Your task to perform on an android device: Search for a nightstand on IKEA. Image 0: 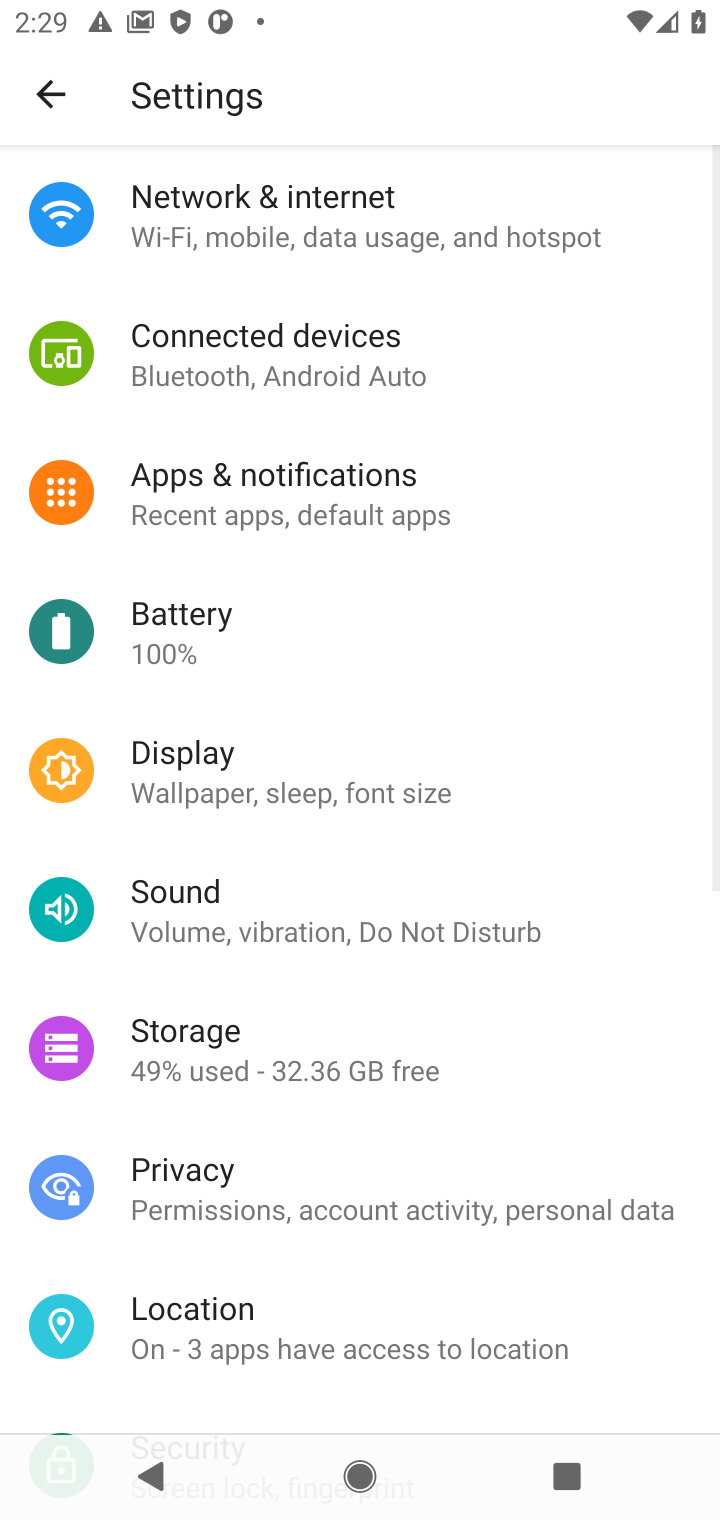
Step 0: press home button
Your task to perform on an android device: Search for a nightstand on IKEA. Image 1: 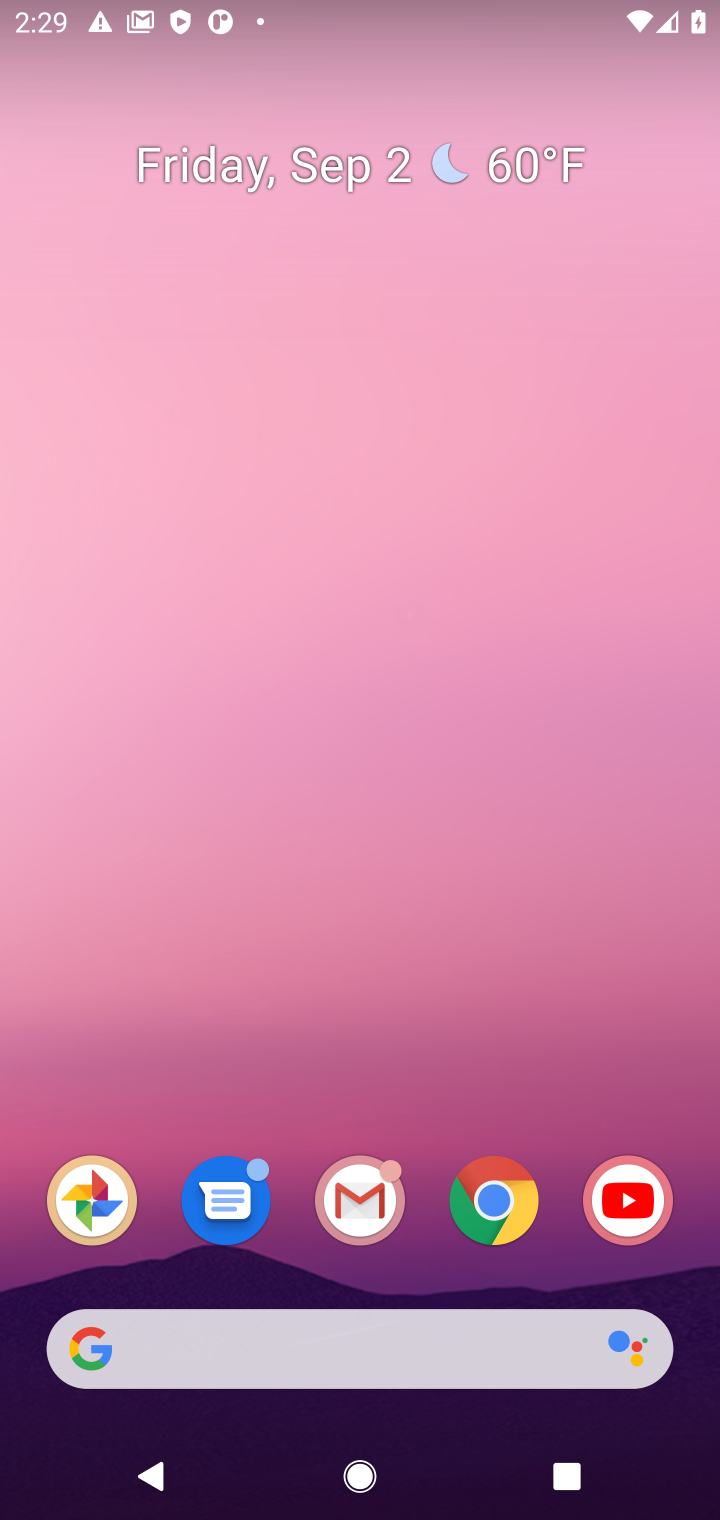
Step 1: click (477, 1198)
Your task to perform on an android device: Search for a nightstand on IKEA. Image 2: 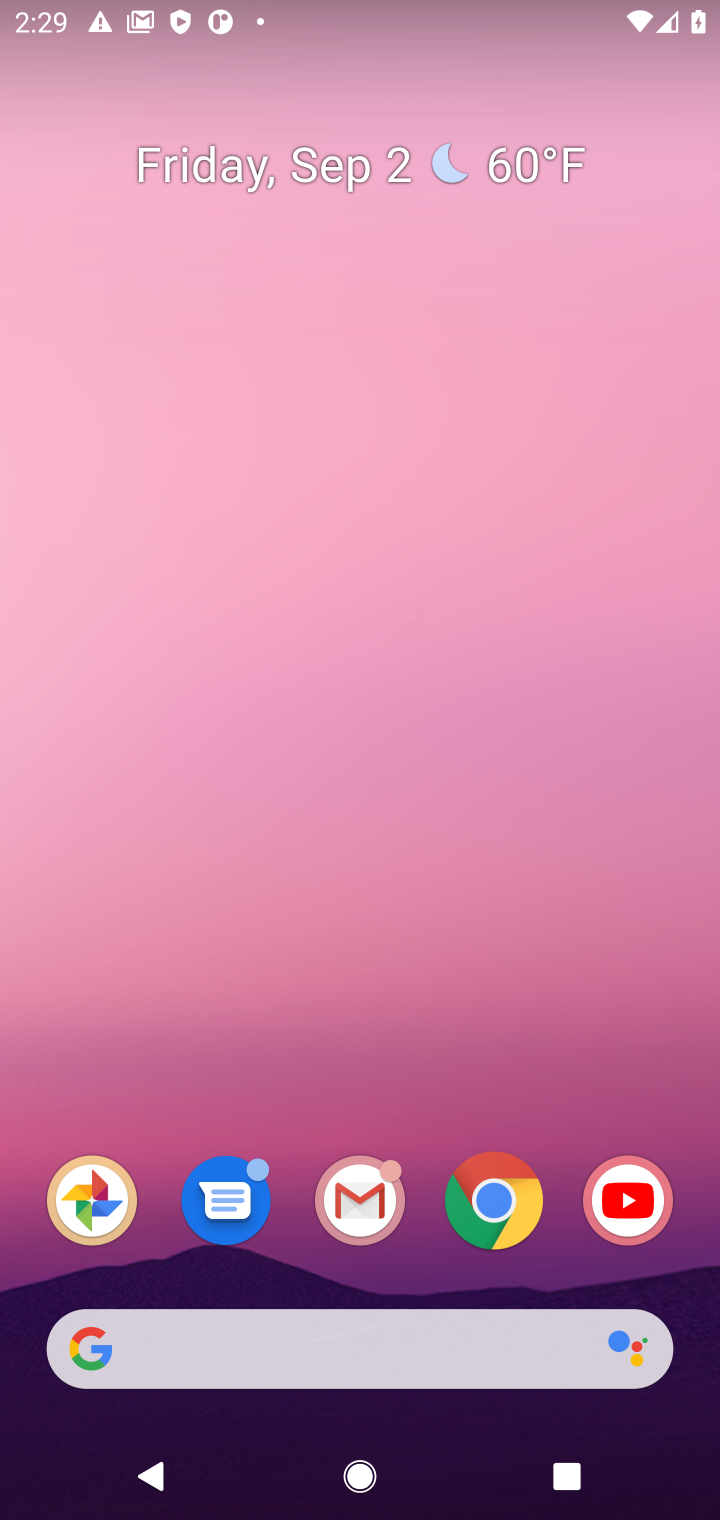
Step 2: click (477, 1202)
Your task to perform on an android device: Search for a nightstand on IKEA. Image 3: 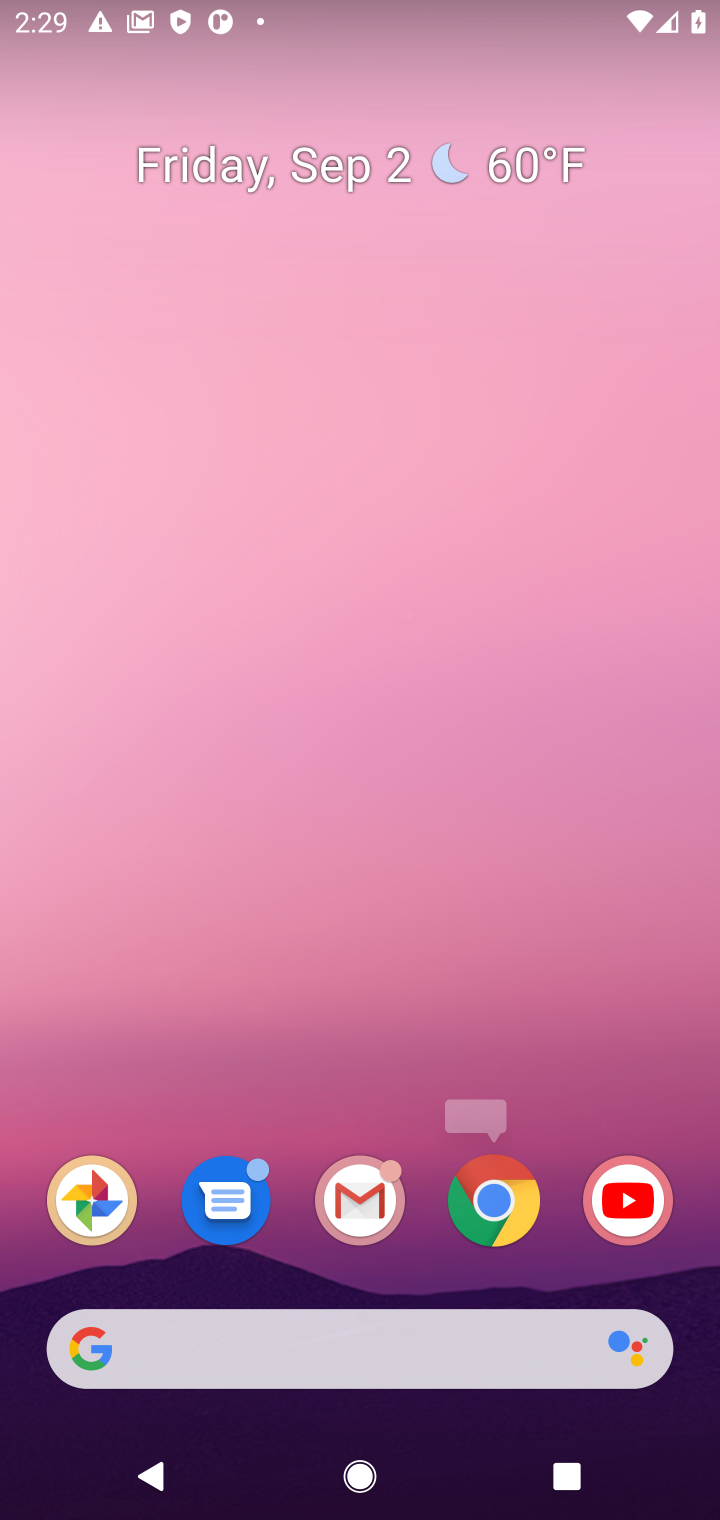
Step 3: click (481, 1196)
Your task to perform on an android device: Search for a nightstand on IKEA. Image 4: 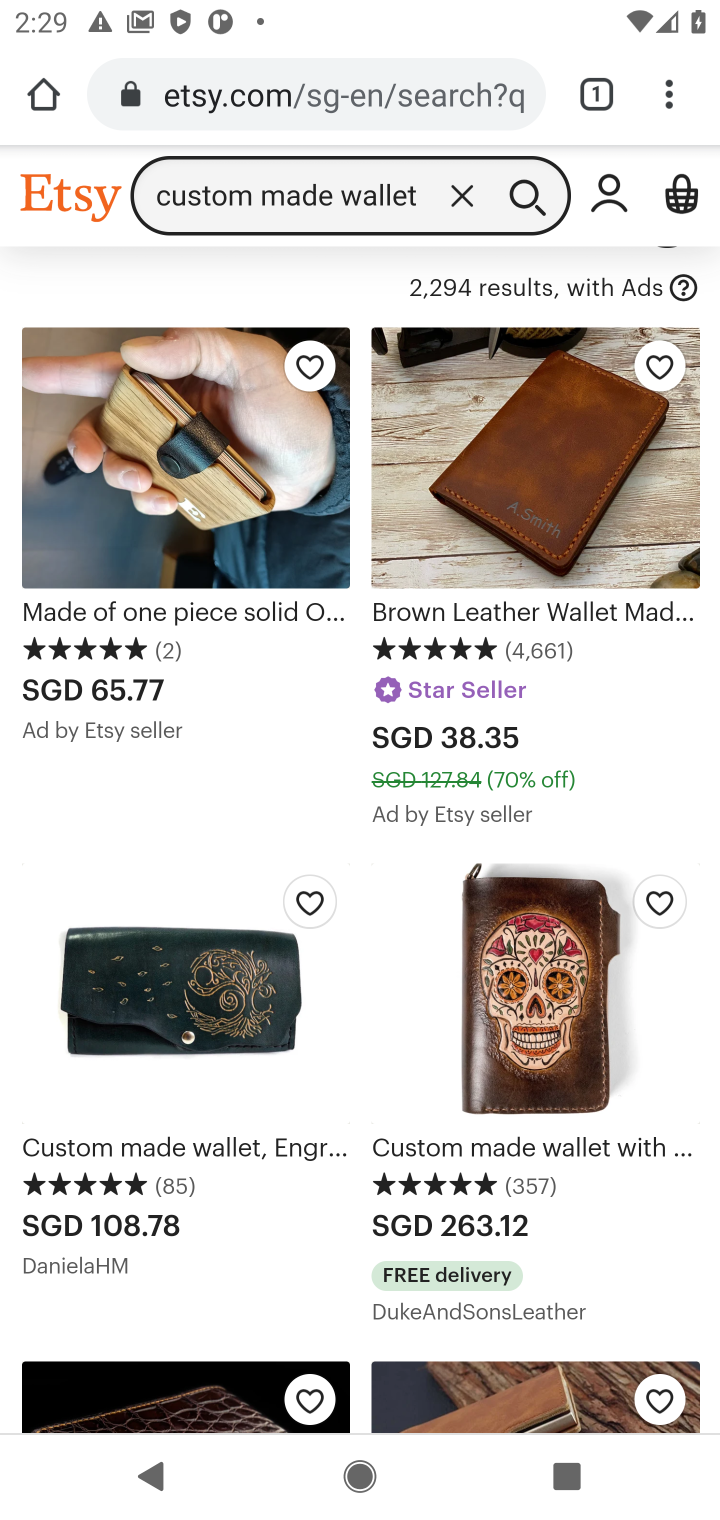
Step 4: click (421, 80)
Your task to perform on an android device: Search for a nightstand on IKEA. Image 5: 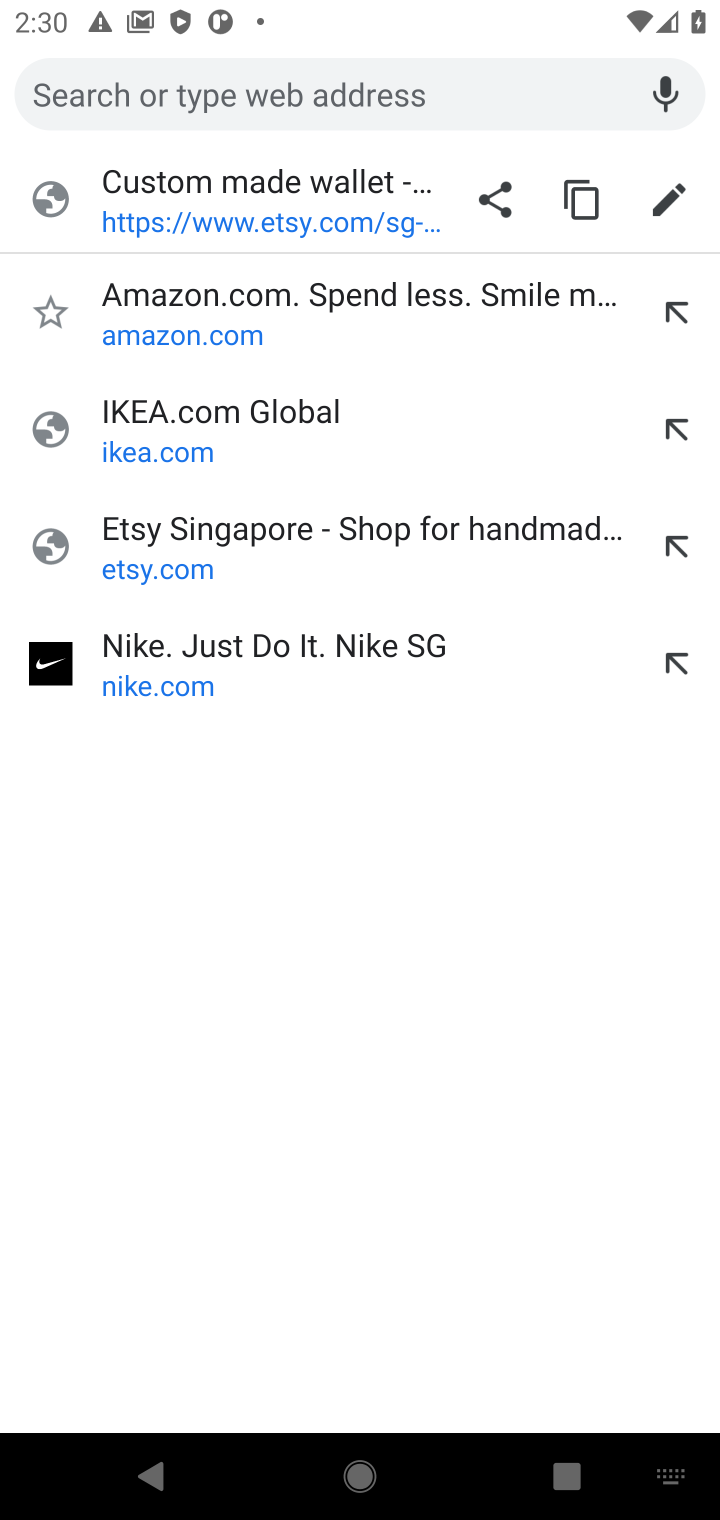
Step 5: type "IKEA"
Your task to perform on an android device: Search for a nightstand on IKEA. Image 6: 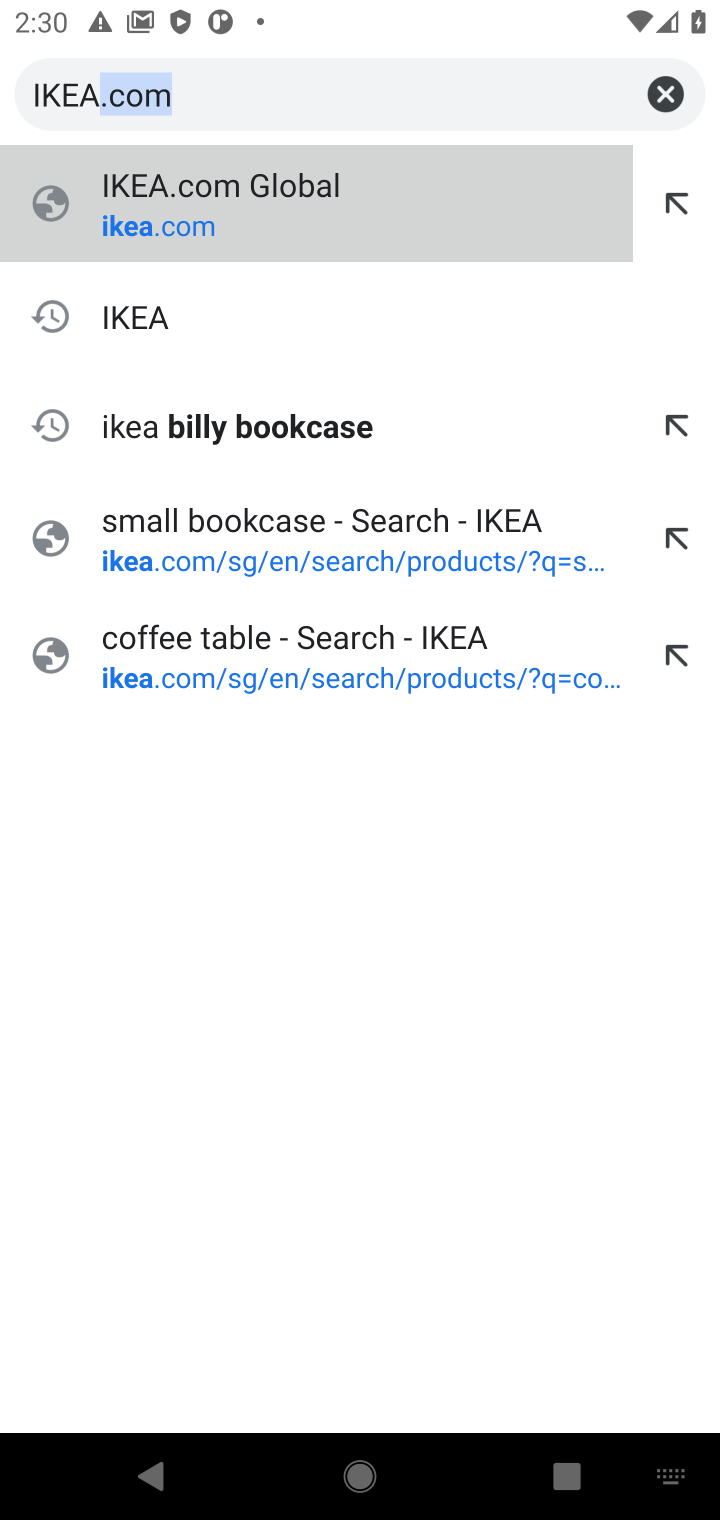
Step 6: press enter
Your task to perform on an android device: Search for a nightstand on IKEA. Image 7: 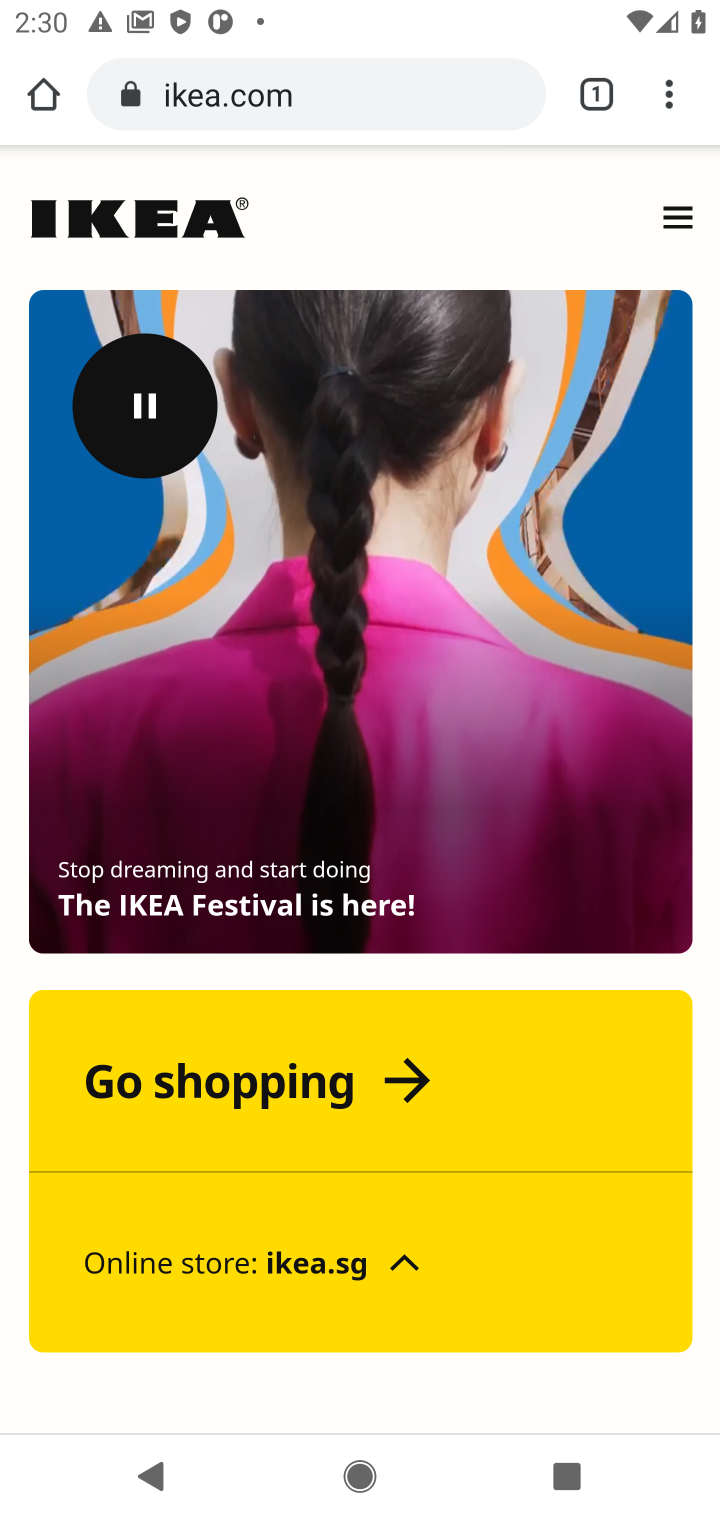
Step 7: click (414, 1078)
Your task to perform on an android device: Search for a nightstand on IKEA. Image 8: 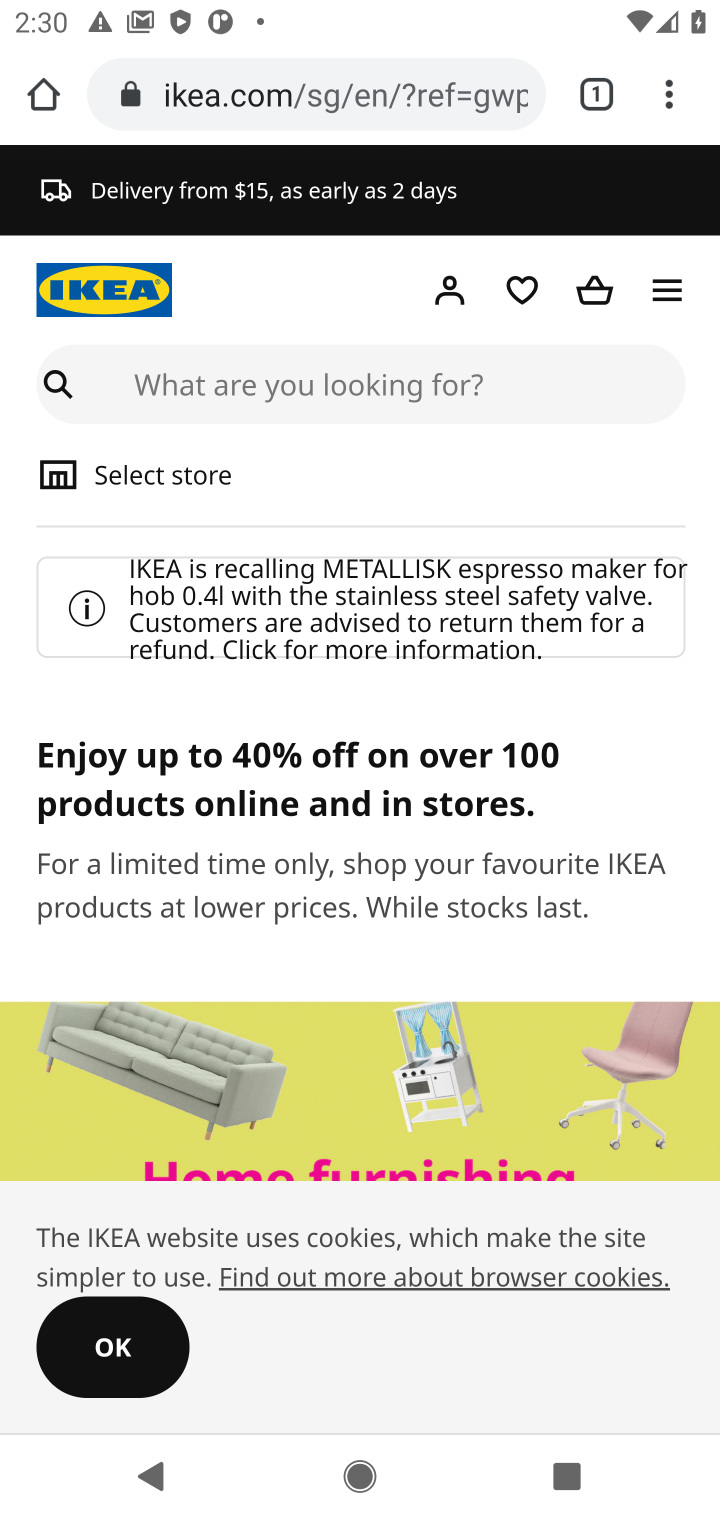
Step 8: click (380, 391)
Your task to perform on an android device: Search for a nightstand on IKEA. Image 9: 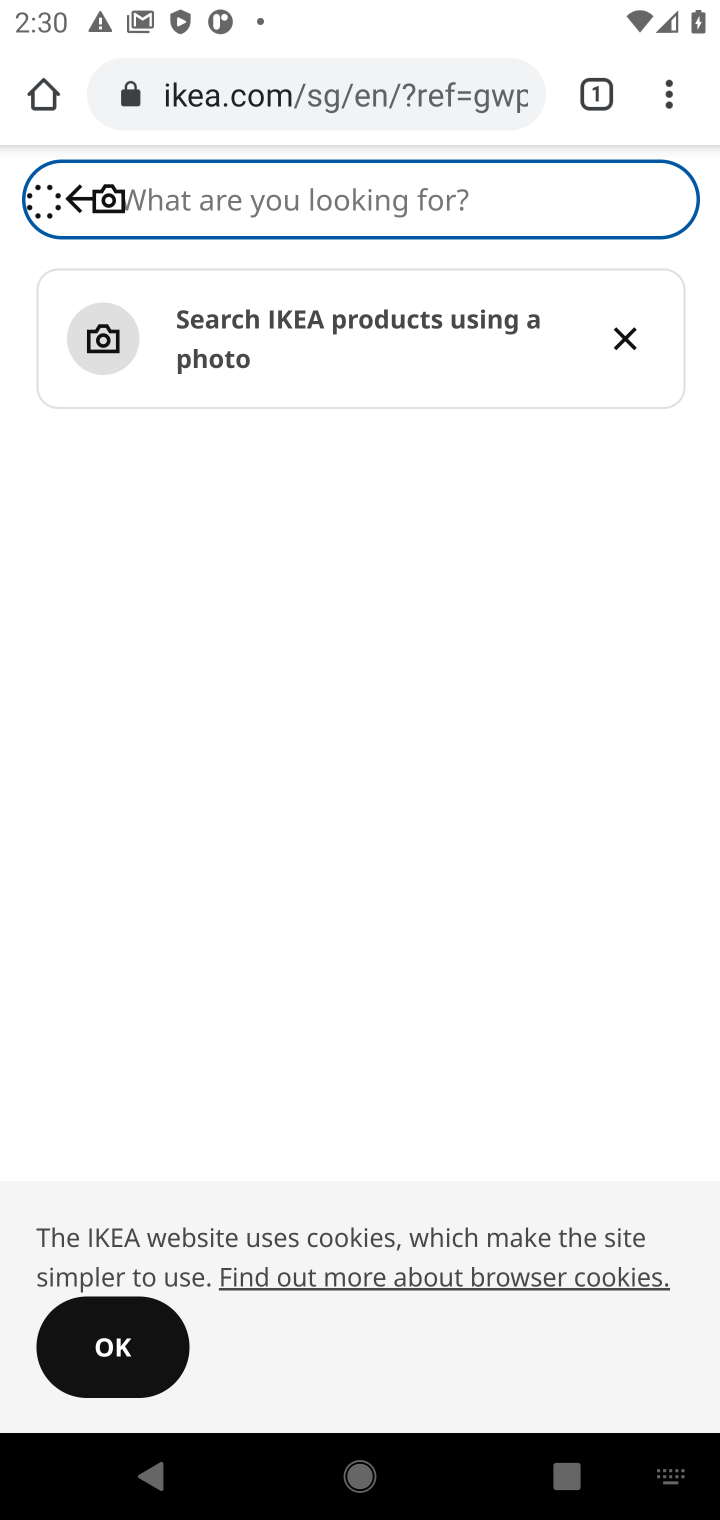
Step 9: type "nightstand"
Your task to perform on an android device: Search for a nightstand on IKEA. Image 10: 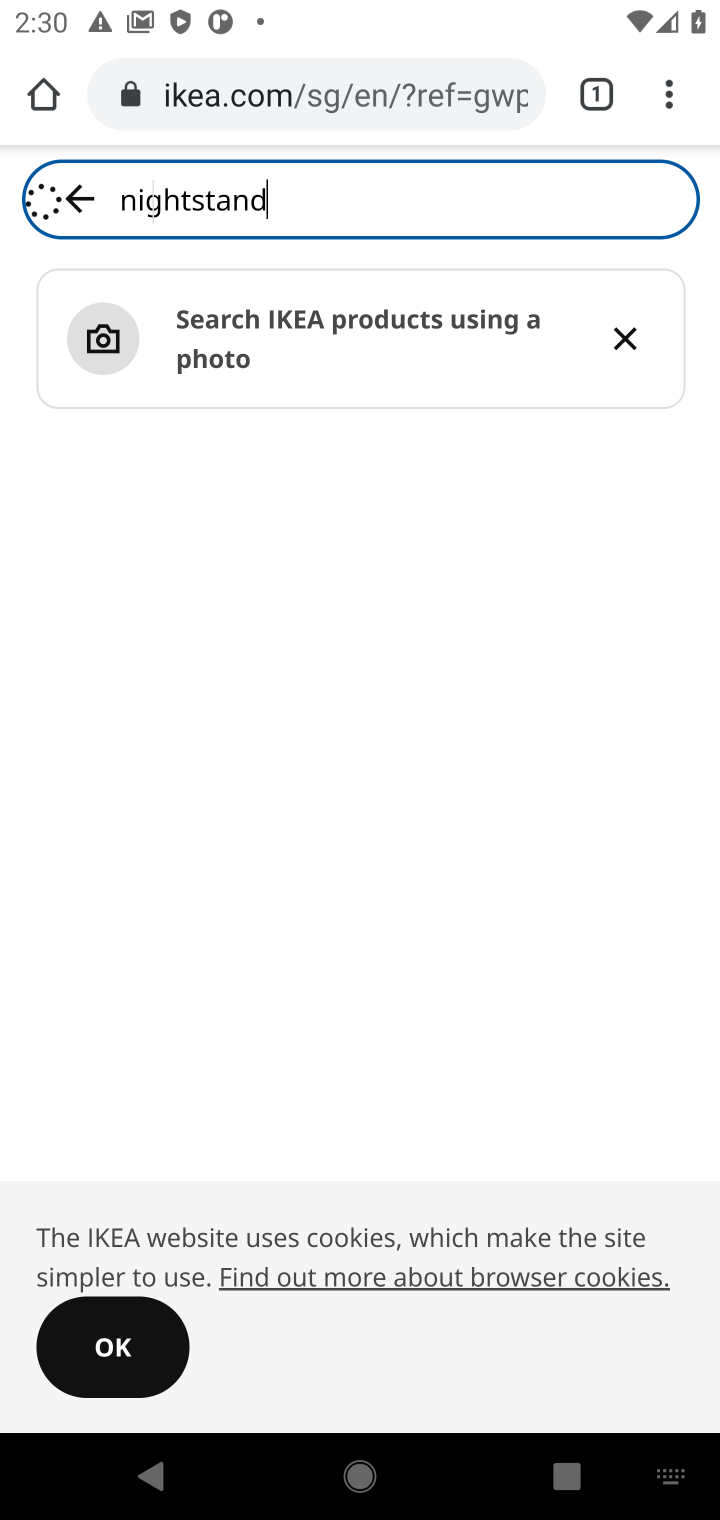
Step 10: press enter
Your task to perform on an android device: Search for a nightstand on IKEA. Image 11: 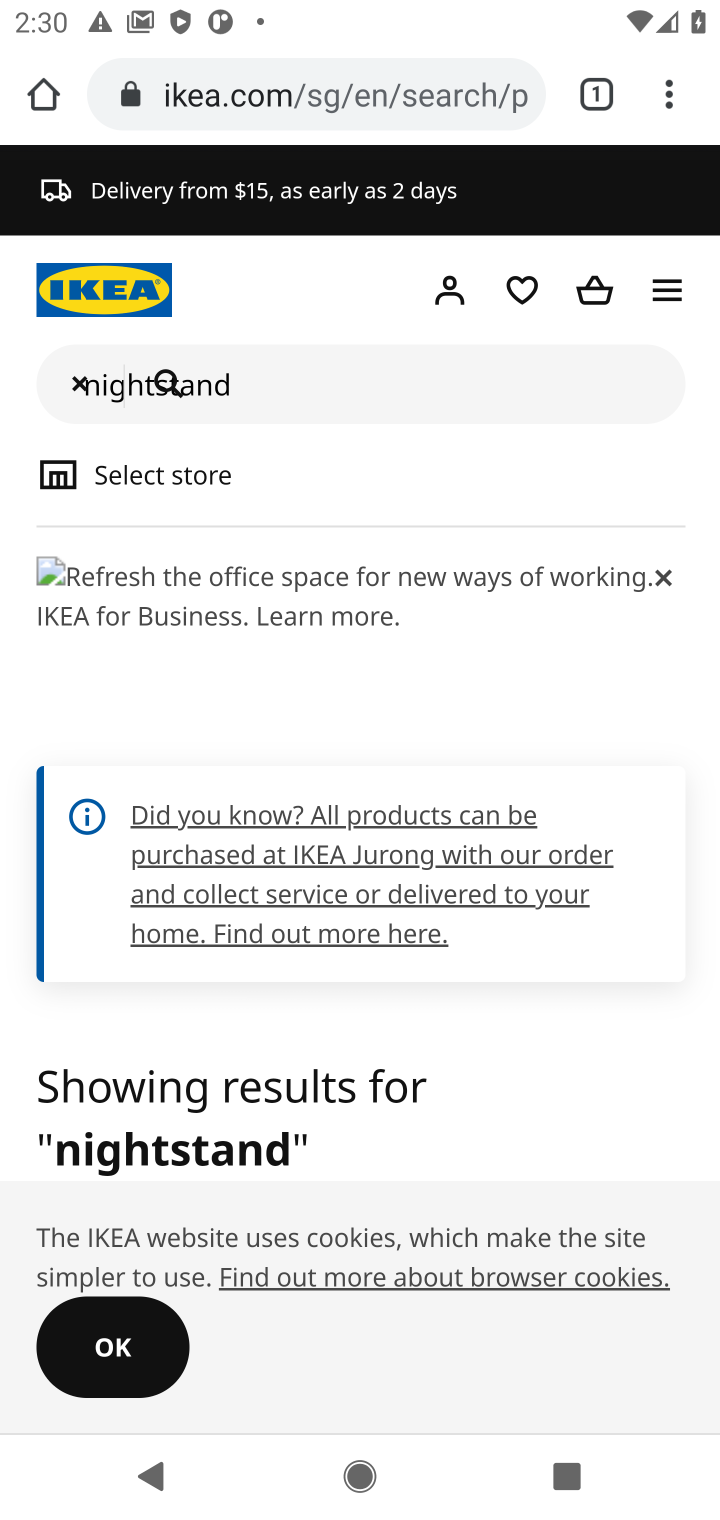
Step 11: task complete